Your task to perform on an android device: toggle wifi Image 0: 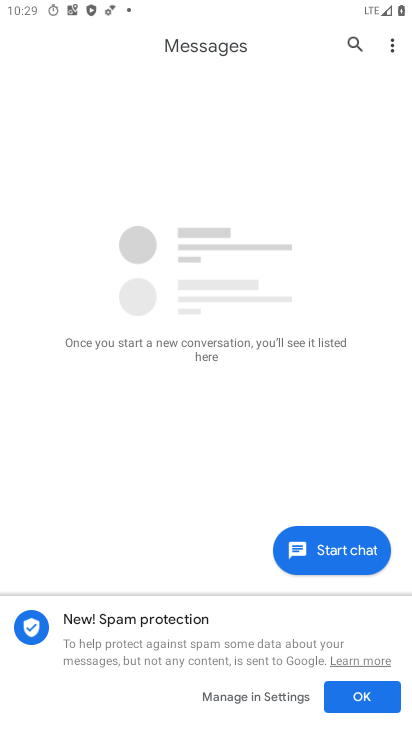
Step 0: press home button
Your task to perform on an android device: toggle wifi Image 1: 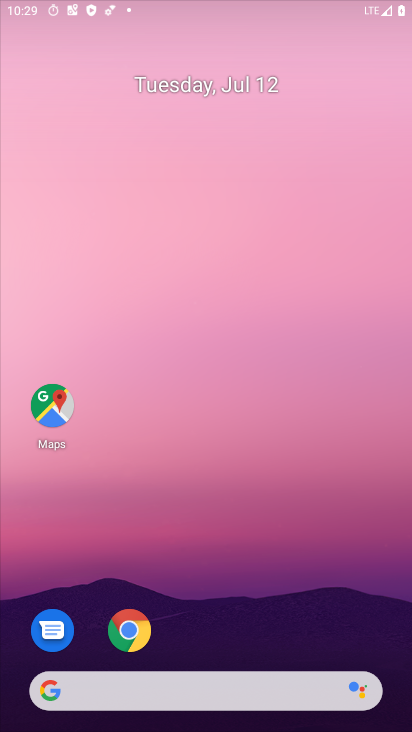
Step 1: drag from (206, 646) to (226, 95)
Your task to perform on an android device: toggle wifi Image 2: 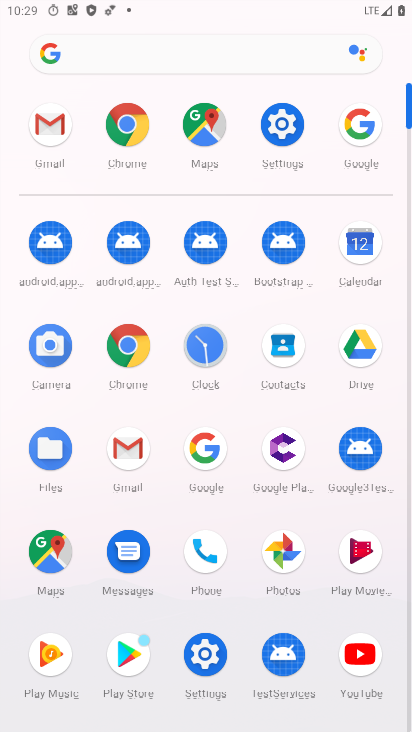
Step 2: click (286, 129)
Your task to perform on an android device: toggle wifi Image 3: 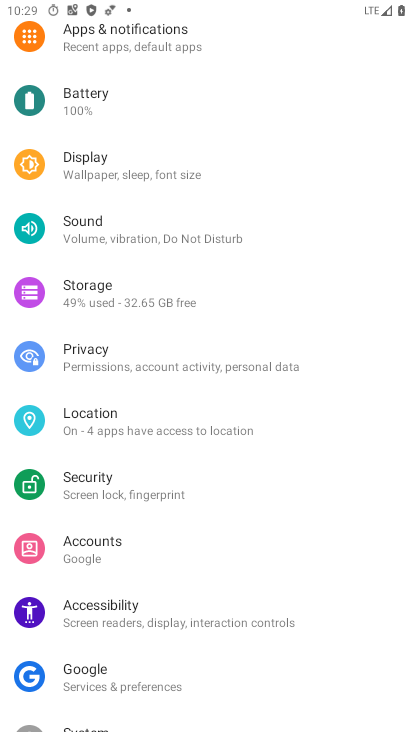
Step 3: drag from (125, 88) to (174, 556)
Your task to perform on an android device: toggle wifi Image 4: 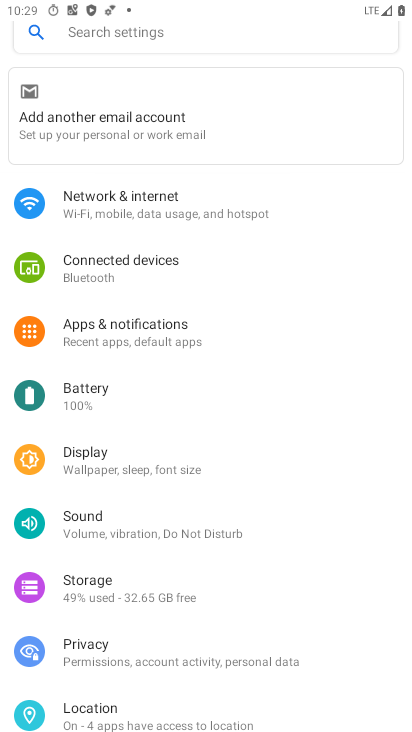
Step 4: click (133, 216)
Your task to perform on an android device: toggle wifi Image 5: 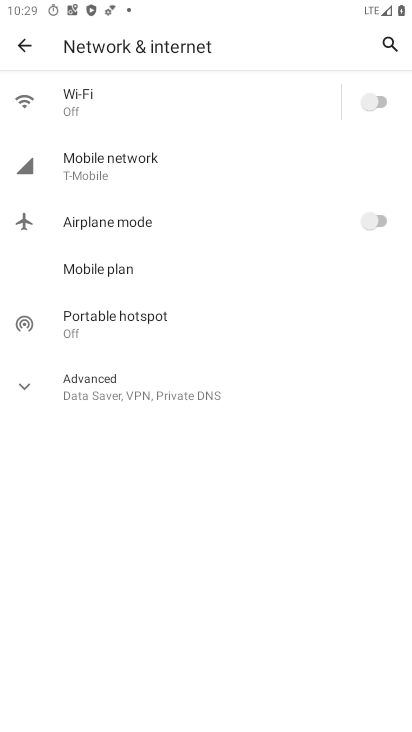
Step 5: click (380, 97)
Your task to perform on an android device: toggle wifi Image 6: 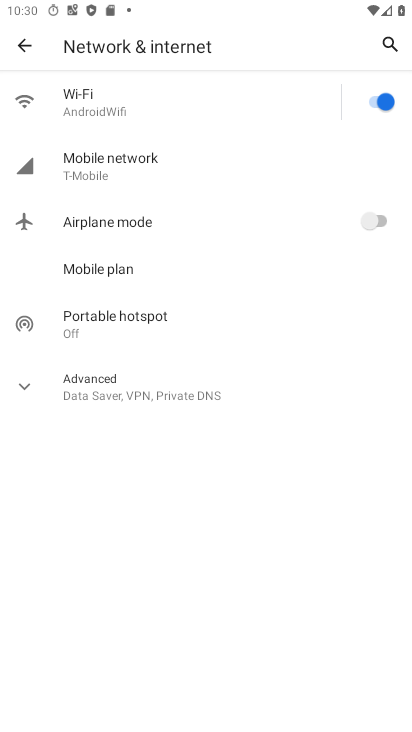
Step 6: task complete